Your task to perform on an android device: turn vacation reply on in the gmail app Image 0: 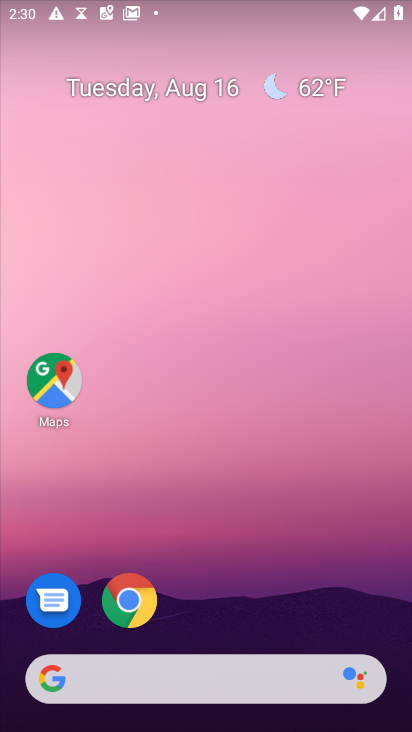
Step 0: drag from (243, 659) to (210, 202)
Your task to perform on an android device: turn vacation reply on in the gmail app Image 1: 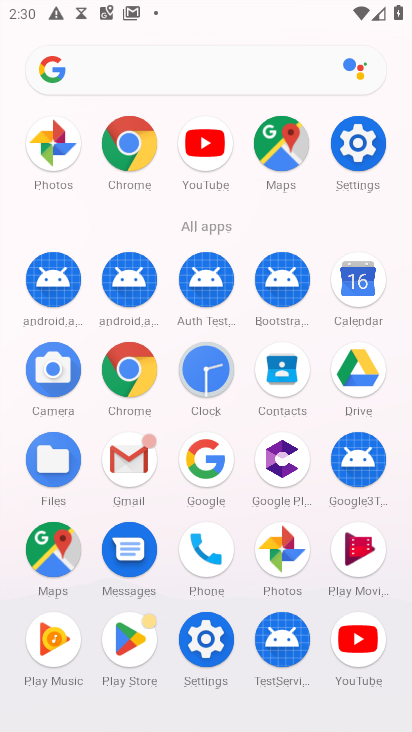
Step 1: click (134, 470)
Your task to perform on an android device: turn vacation reply on in the gmail app Image 2: 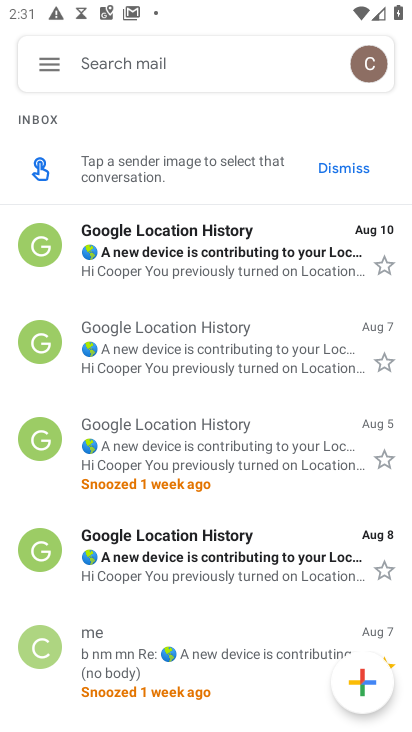
Step 2: click (47, 66)
Your task to perform on an android device: turn vacation reply on in the gmail app Image 3: 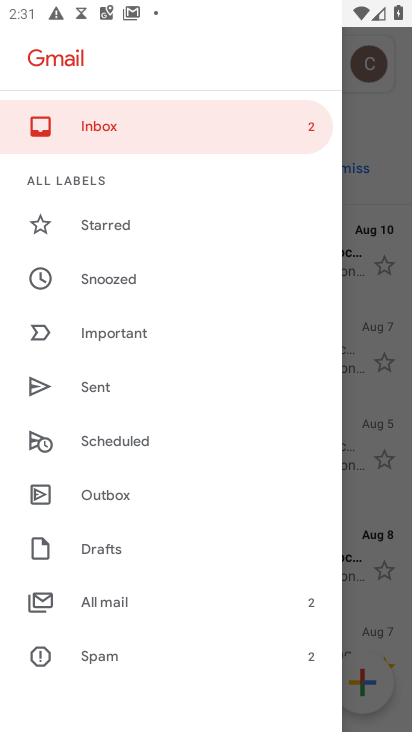
Step 3: drag from (185, 586) to (150, 278)
Your task to perform on an android device: turn vacation reply on in the gmail app Image 4: 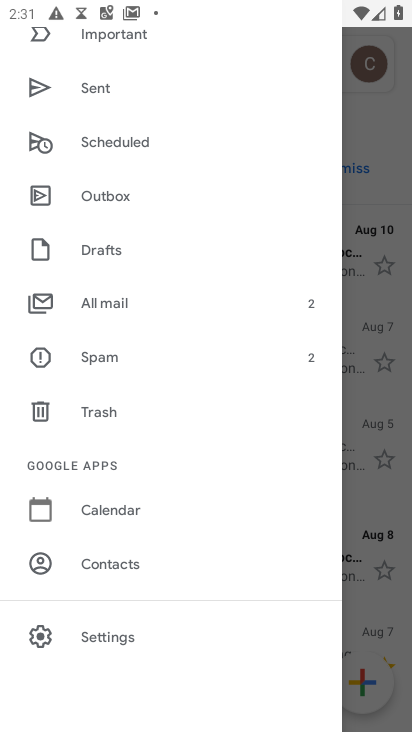
Step 4: click (123, 640)
Your task to perform on an android device: turn vacation reply on in the gmail app Image 5: 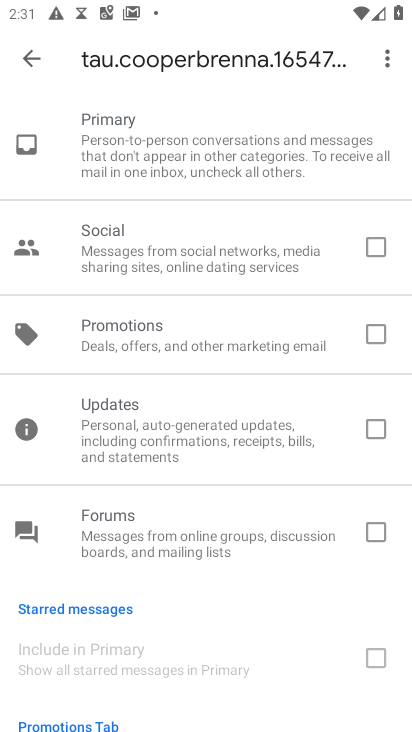
Step 5: click (35, 67)
Your task to perform on an android device: turn vacation reply on in the gmail app Image 6: 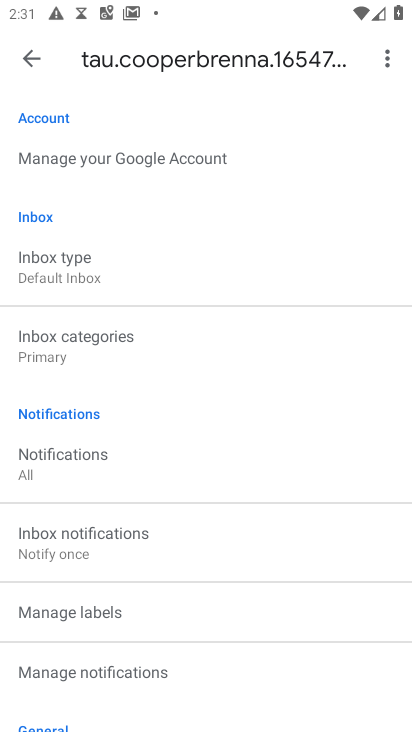
Step 6: drag from (196, 636) to (179, 105)
Your task to perform on an android device: turn vacation reply on in the gmail app Image 7: 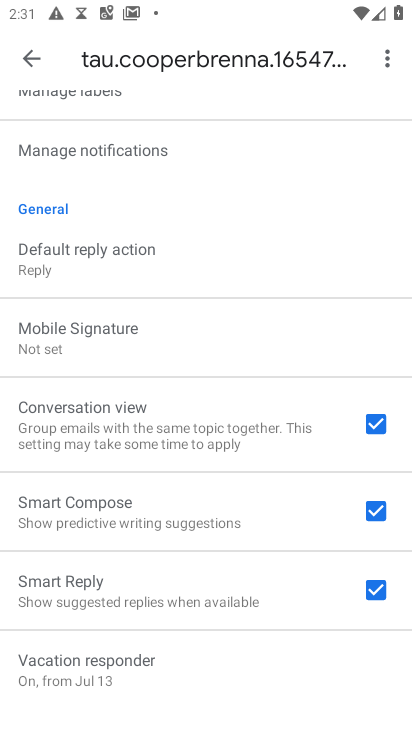
Step 7: click (135, 665)
Your task to perform on an android device: turn vacation reply on in the gmail app Image 8: 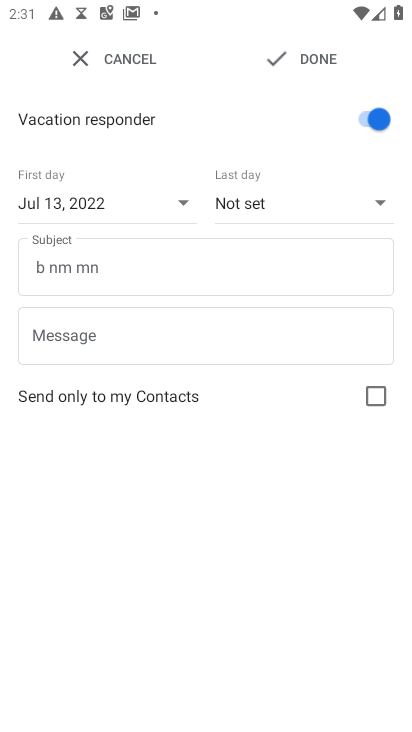
Step 8: click (274, 68)
Your task to perform on an android device: turn vacation reply on in the gmail app Image 9: 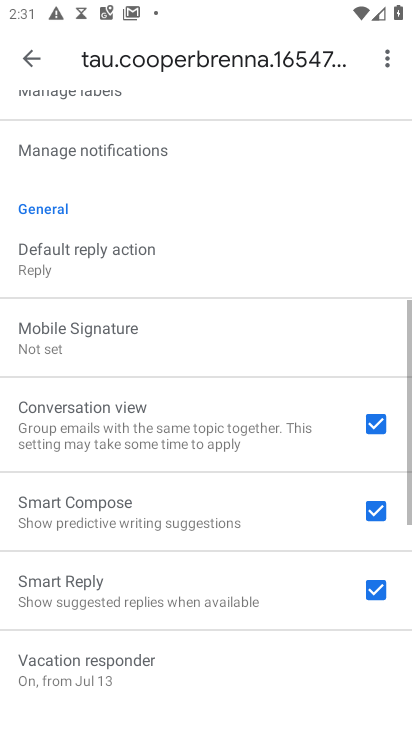
Step 9: task complete